Your task to perform on an android device: change your default location settings in chrome Image 0: 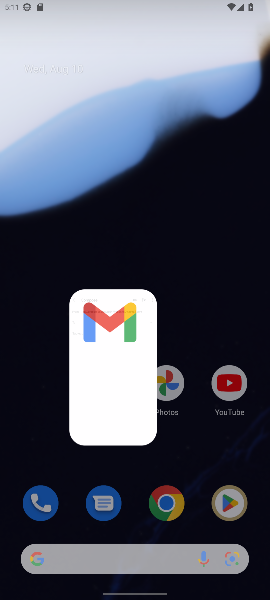
Step 0: press home button
Your task to perform on an android device: change your default location settings in chrome Image 1: 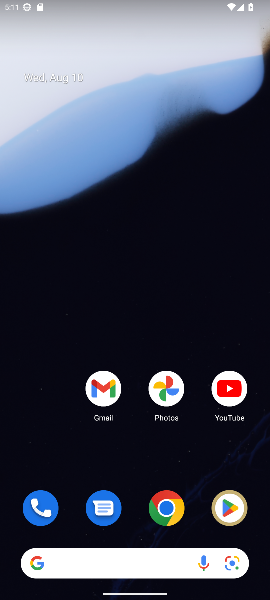
Step 1: click (169, 512)
Your task to perform on an android device: change your default location settings in chrome Image 2: 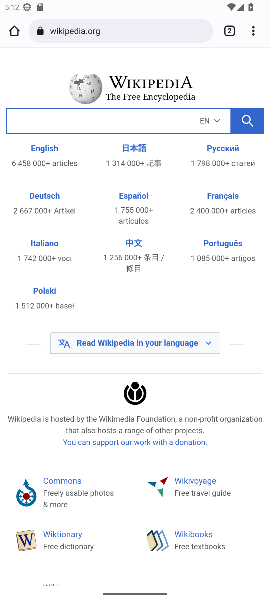
Step 2: drag from (246, 23) to (148, 397)
Your task to perform on an android device: change your default location settings in chrome Image 3: 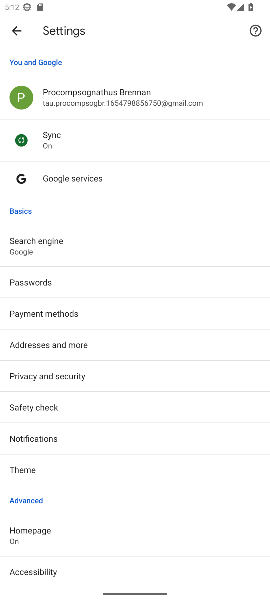
Step 3: drag from (108, 524) to (244, 33)
Your task to perform on an android device: change your default location settings in chrome Image 4: 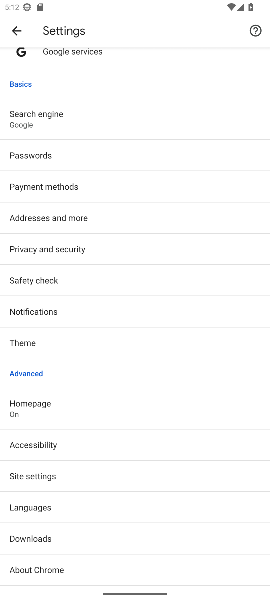
Step 4: click (38, 475)
Your task to perform on an android device: change your default location settings in chrome Image 5: 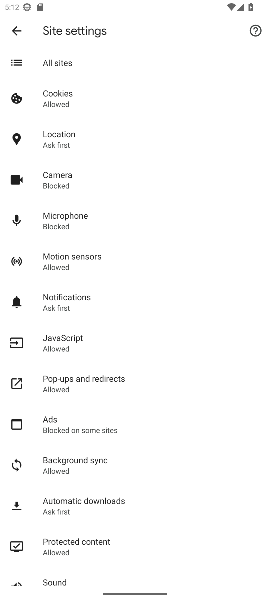
Step 5: click (51, 137)
Your task to perform on an android device: change your default location settings in chrome Image 6: 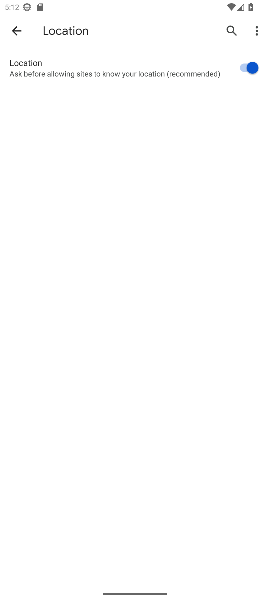
Step 6: click (253, 70)
Your task to perform on an android device: change your default location settings in chrome Image 7: 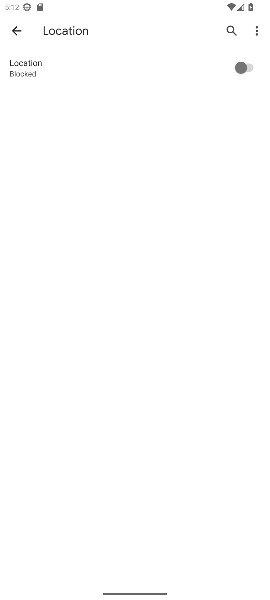
Step 7: task complete